Your task to perform on an android device: set the timer Image 0: 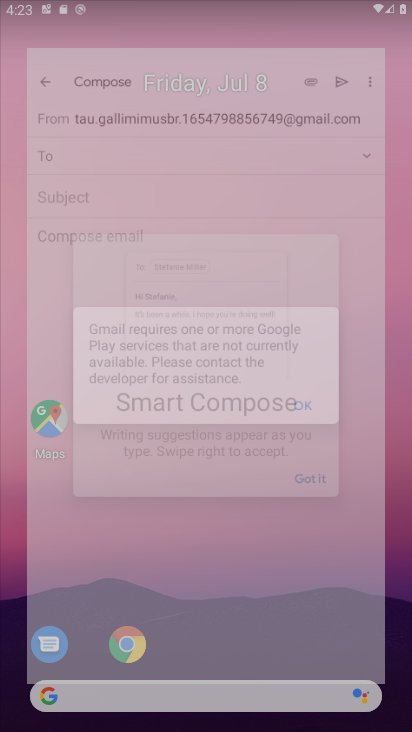
Step 0: drag from (365, 653) to (309, 188)
Your task to perform on an android device: set the timer Image 1: 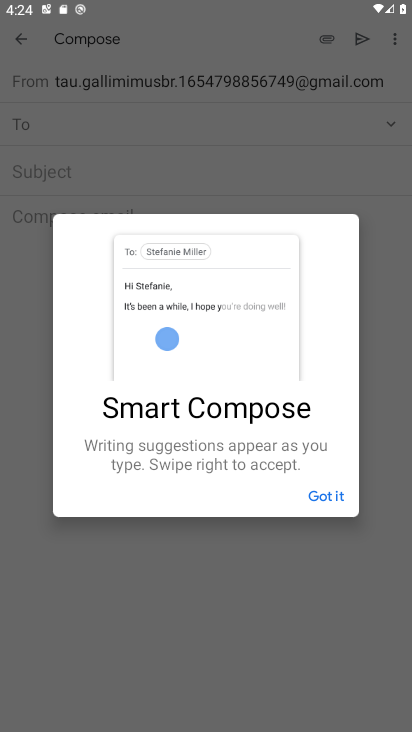
Step 1: press home button
Your task to perform on an android device: set the timer Image 2: 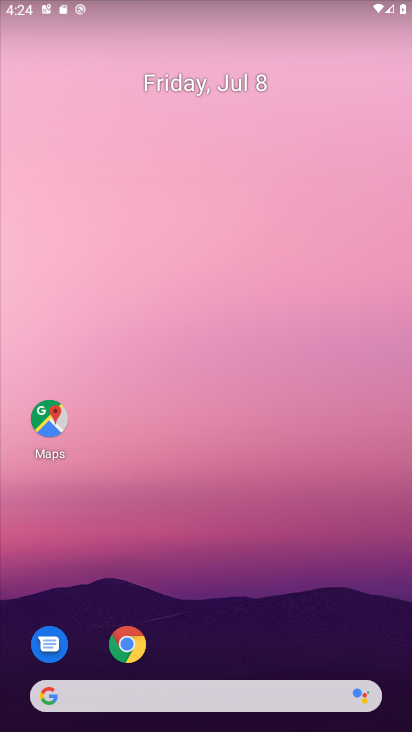
Step 2: drag from (376, 640) to (310, 175)
Your task to perform on an android device: set the timer Image 3: 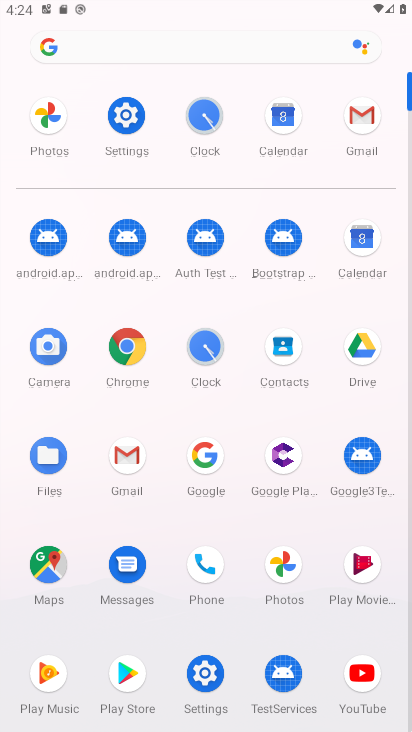
Step 3: click (206, 349)
Your task to perform on an android device: set the timer Image 4: 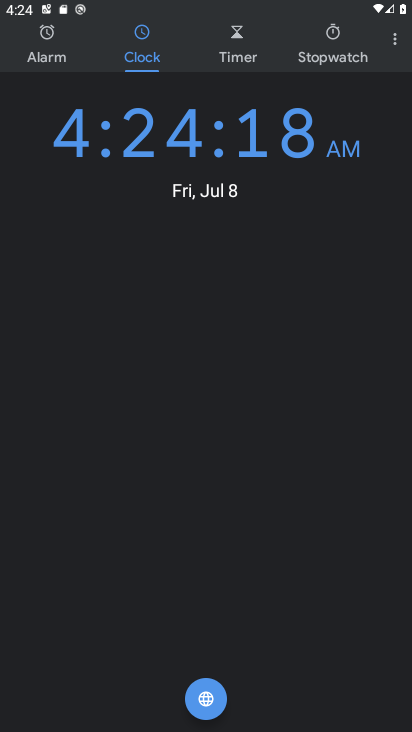
Step 4: click (235, 40)
Your task to perform on an android device: set the timer Image 5: 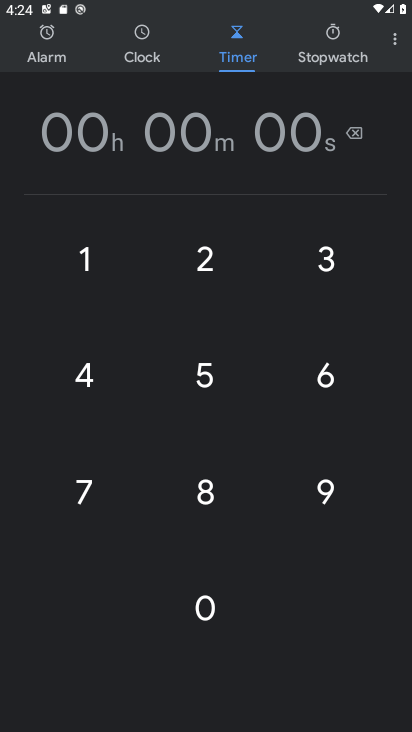
Step 5: click (95, 271)
Your task to perform on an android device: set the timer Image 6: 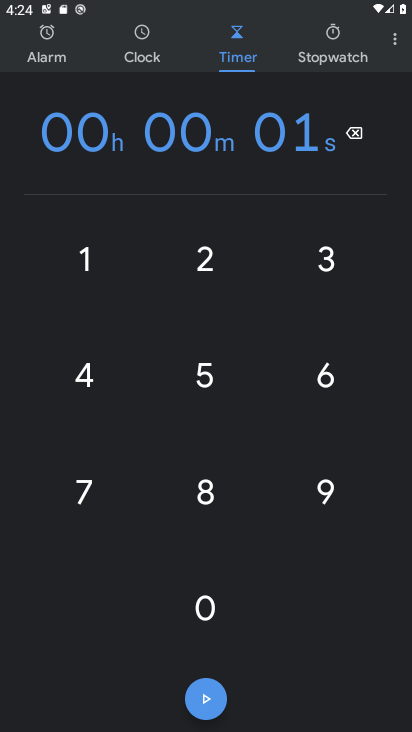
Step 6: click (319, 260)
Your task to perform on an android device: set the timer Image 7: 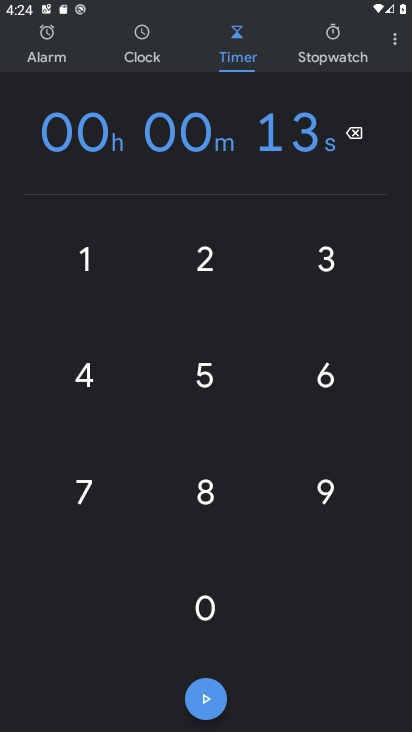
Step 7: click (203, 610)
Your task to perform on an android device: set the timer Image 8: 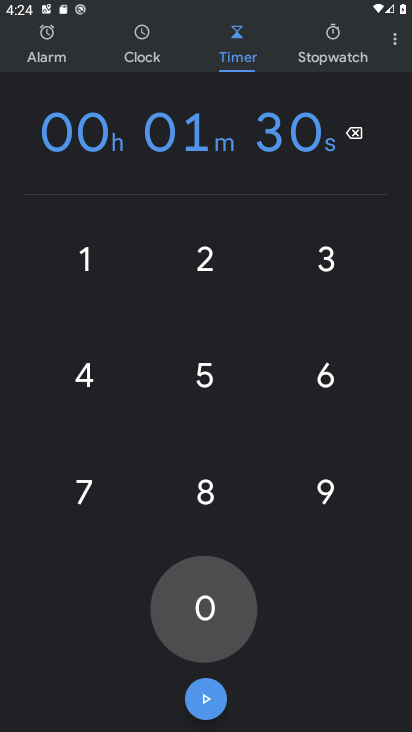
Step 8: click (203, 610)
Your task to perform on an android device: set the timer Image 9: 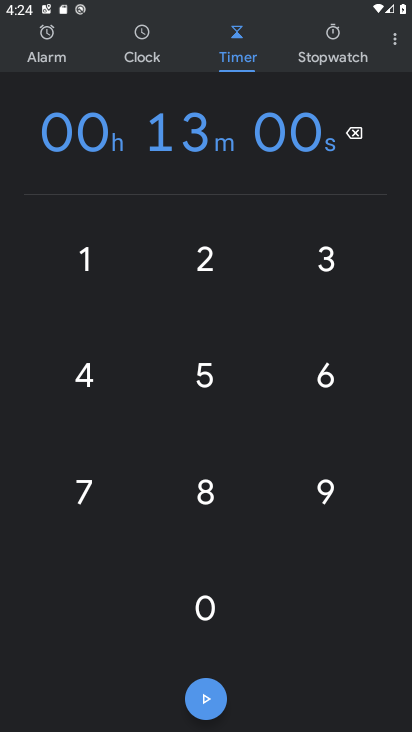
Step 9: click (203, 610)
Your task to perform on an android device: set the timer Image 10: 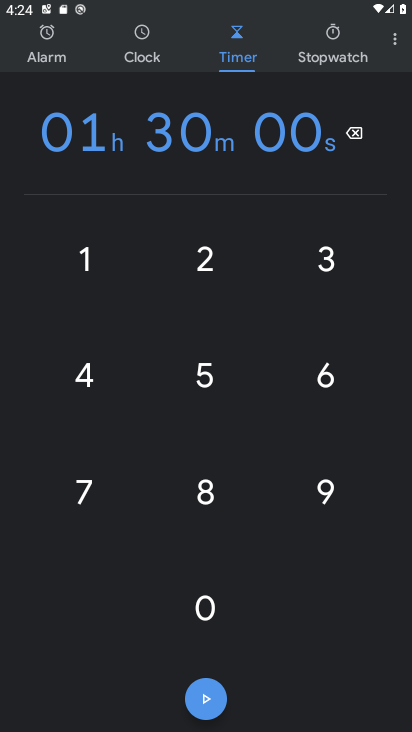
Step 10: task complete